Your task to perform on an android device: Go to wifi settings Image 0: 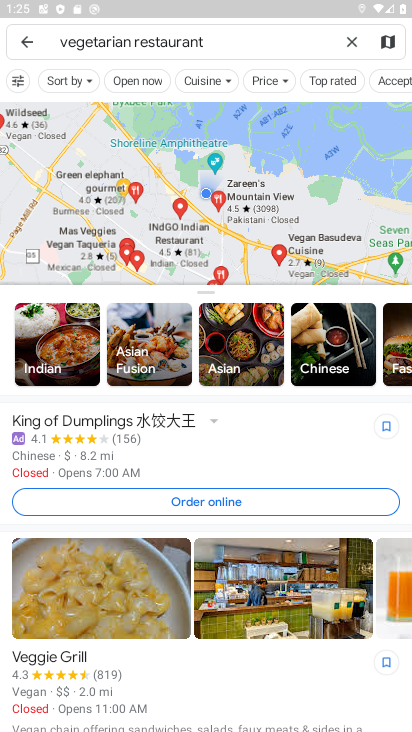
Step 0: press home button
Your task to perform on an android device: Go to wifi settings Image 1: 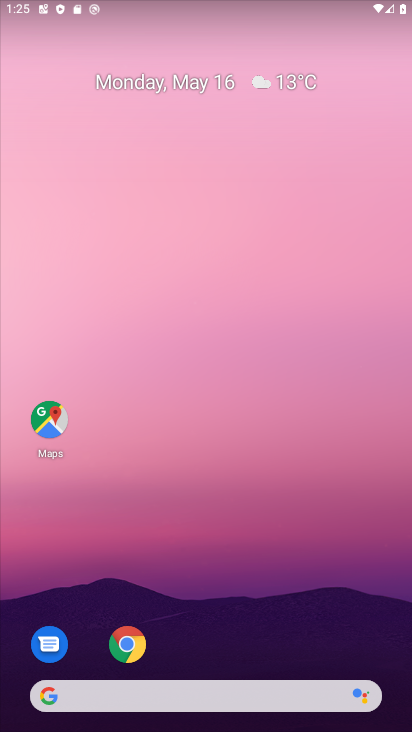
Step 1: drag from (253, 634) to (322, 7)
Your task to perform on an android device: Go to wifi settings Image 2: 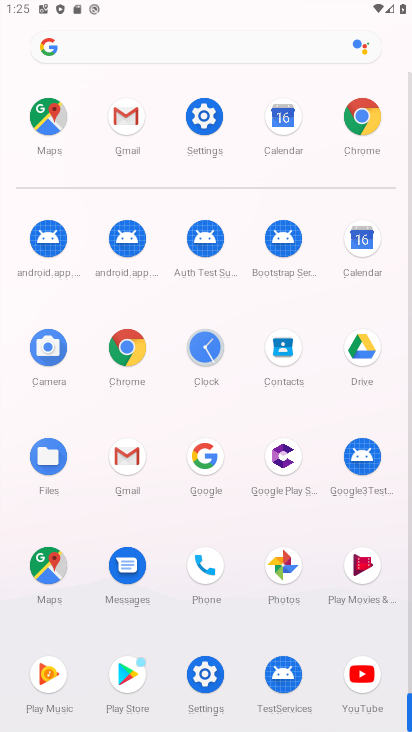
Step 2: click (213, 150)
Your task to perform on an android device: Go to wifi settings Image 3: 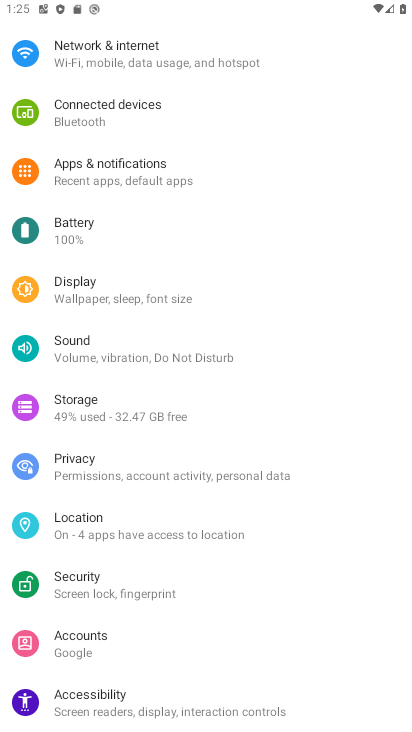
Step 3: drag from (204, 273) to (193, 519)
Your task to perform on an android device: Go to wifi settings Image 4: 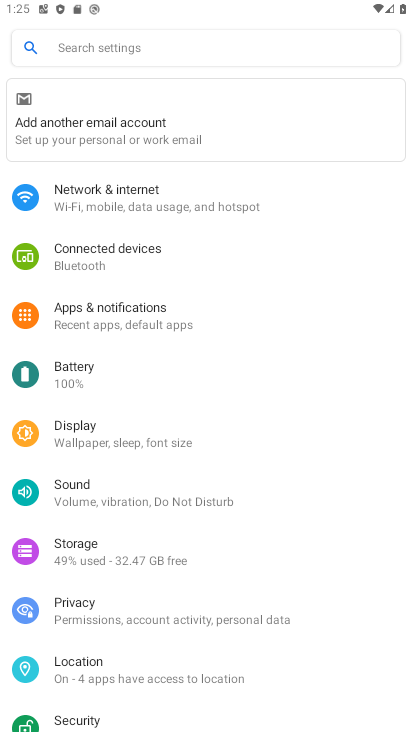
Step 4: drag from (241, 116) to (208, 321)
Your task to perform on an android device: Go to wifi settings Image 5: 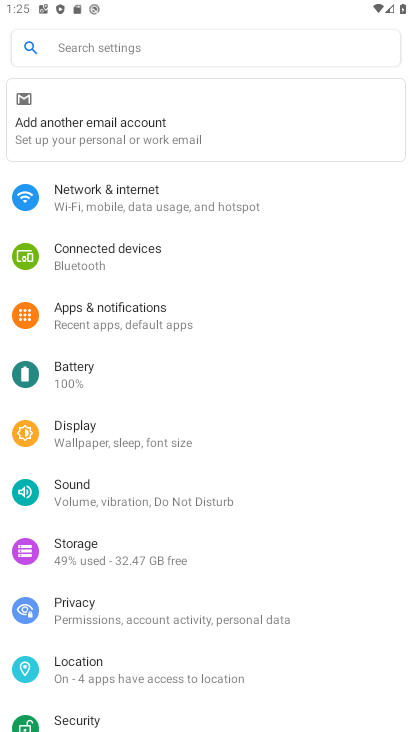
Step 5: click (213, 204)
Your task to perform on an android device: Go to wifi settings Image 6: 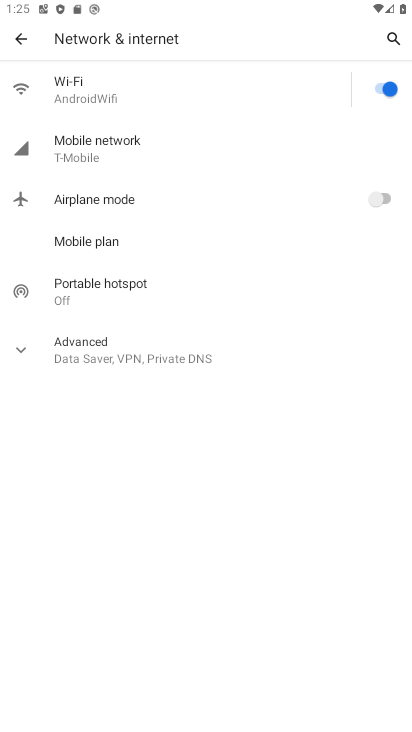
Step 6: click (212, 91)
Your task to perform on an android device: Go to wifi settings Image 7: 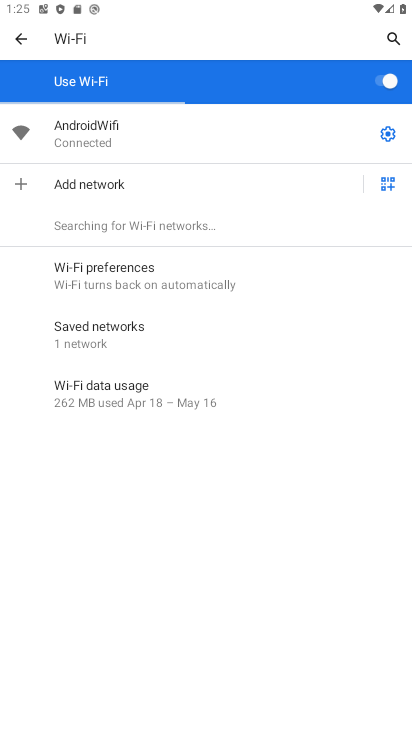
Step 7: task complete